Your task to perform on an android device: Open eBay Image 0: 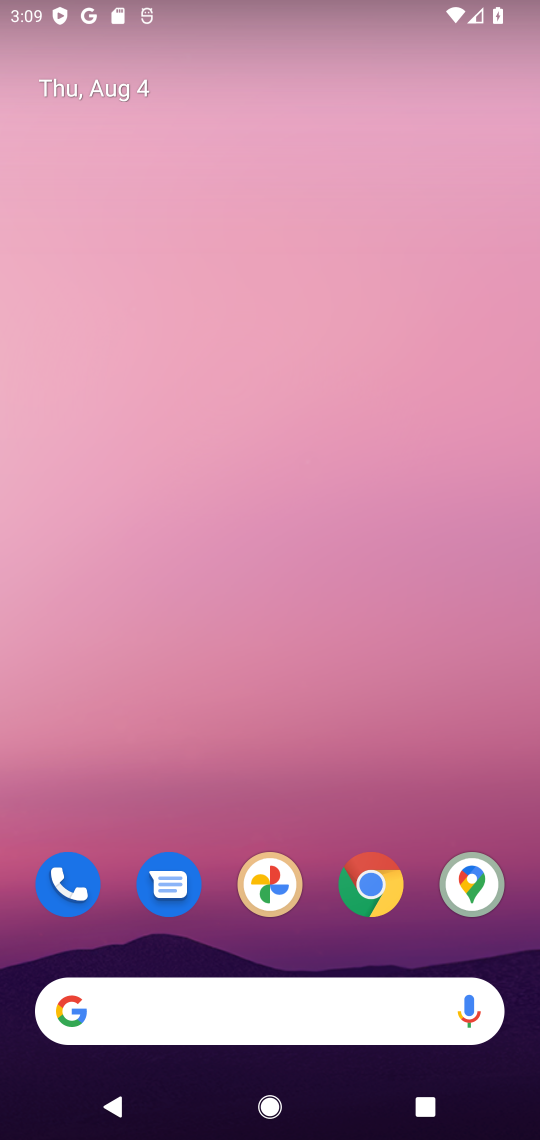
Step 0: drag from (254, 808) to (238, 520)
Your task to perform on an android device: Open eBay Image 1: 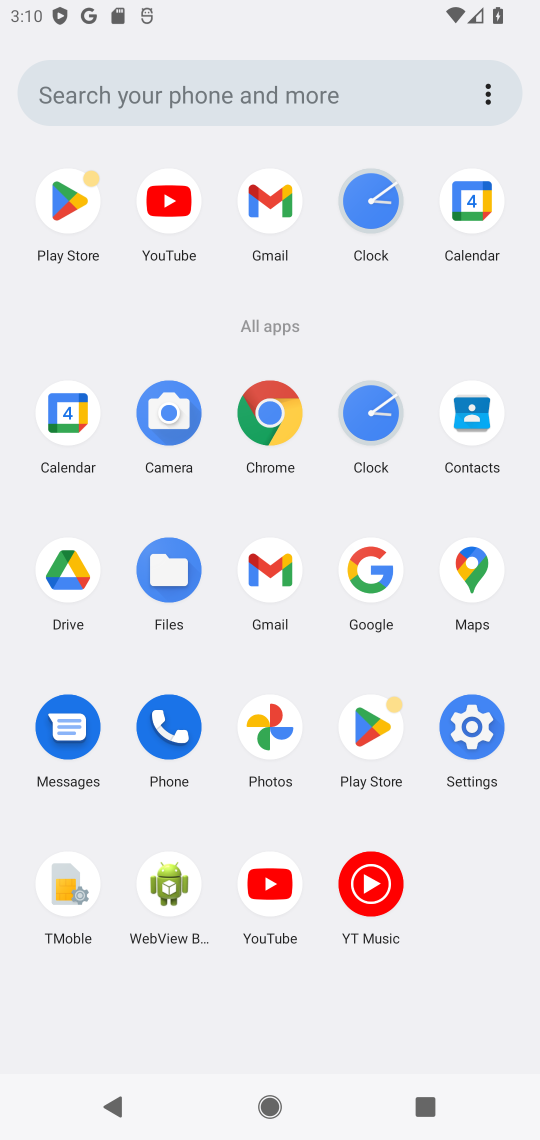
Step 1: click (232, 93)
Your task to perform on an android device: Open eBay Image 2: 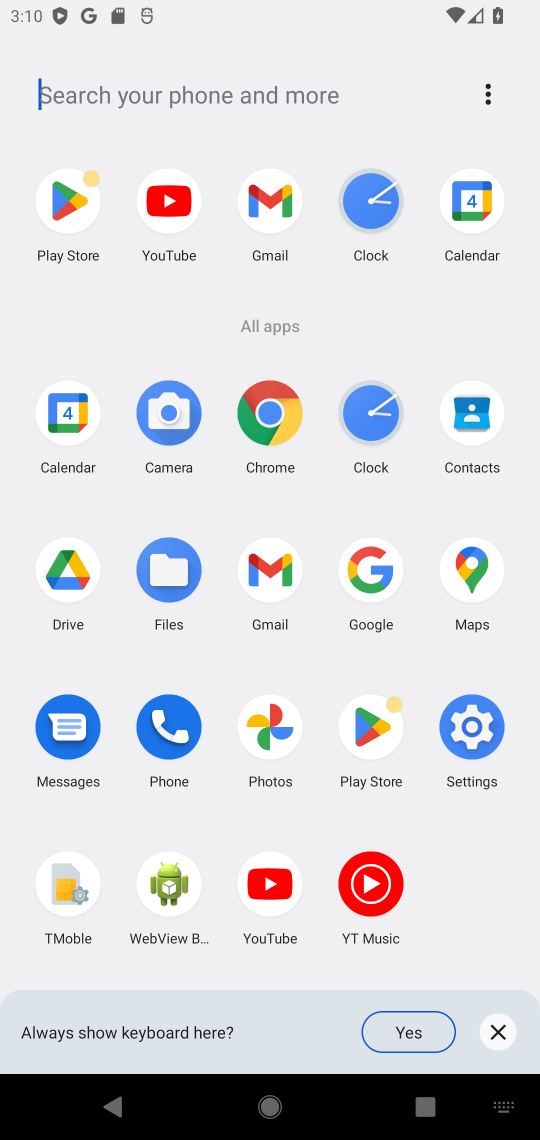
Step 2: type "eBay"
Your task to perform on an android device: Open eBay Image 3: 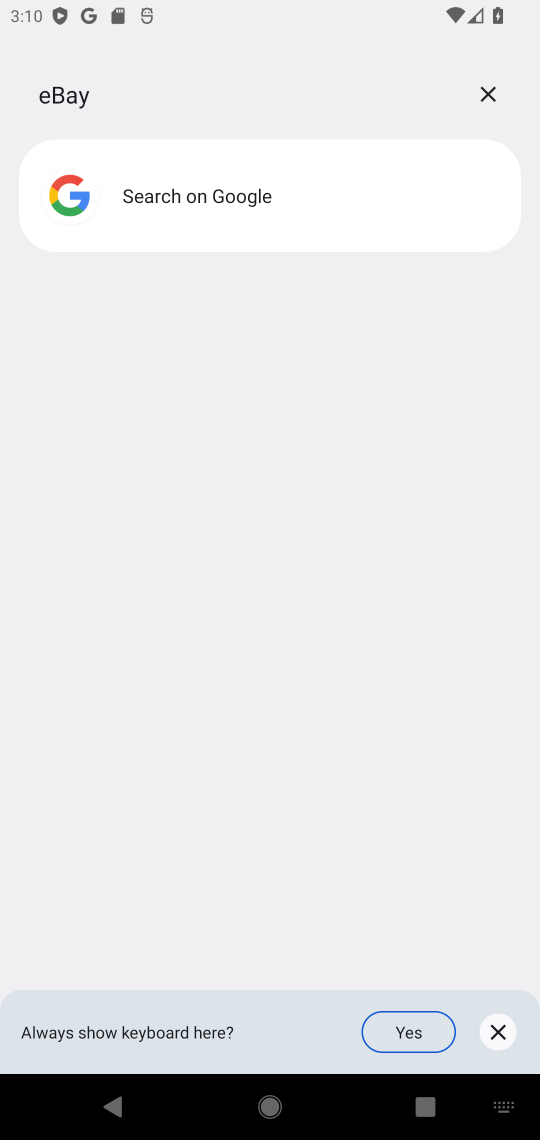
Step 3: click (310, 198)
Your task to perform on an android device: Open eBay Image 4: 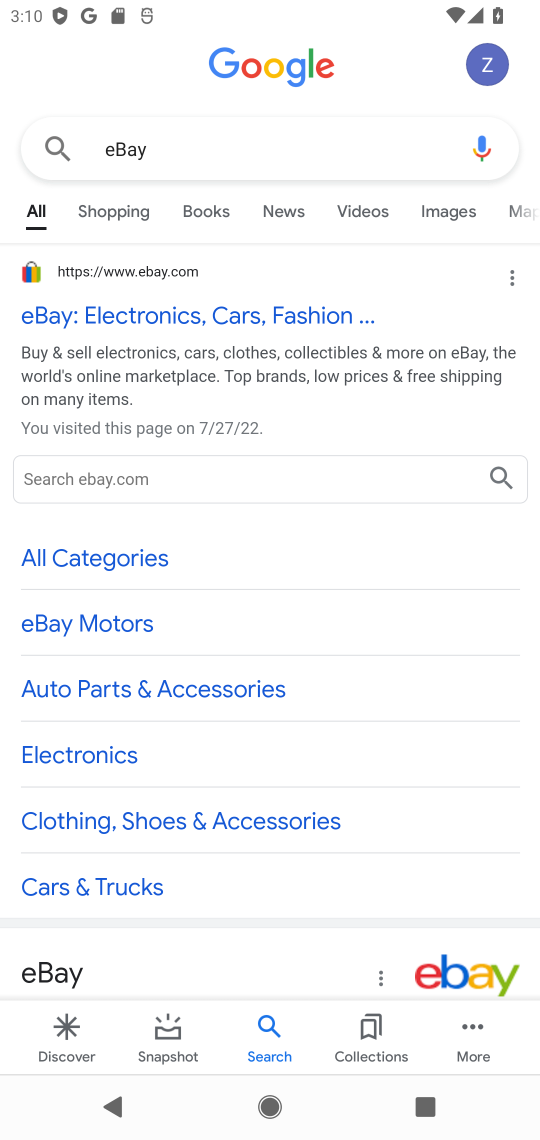
Step 4: click (121, 325)
Your task to perform on an android device: Open eBay Image 5: 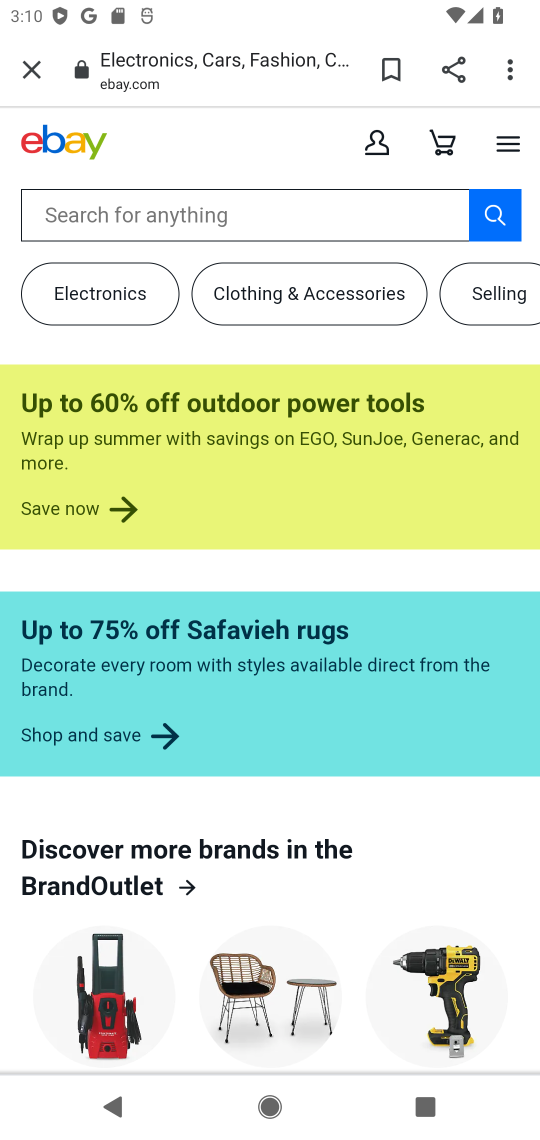
Step 5: drag from (252, 974) to (253, 542)
Your task to perform on an android device: Open eBay Image 6: 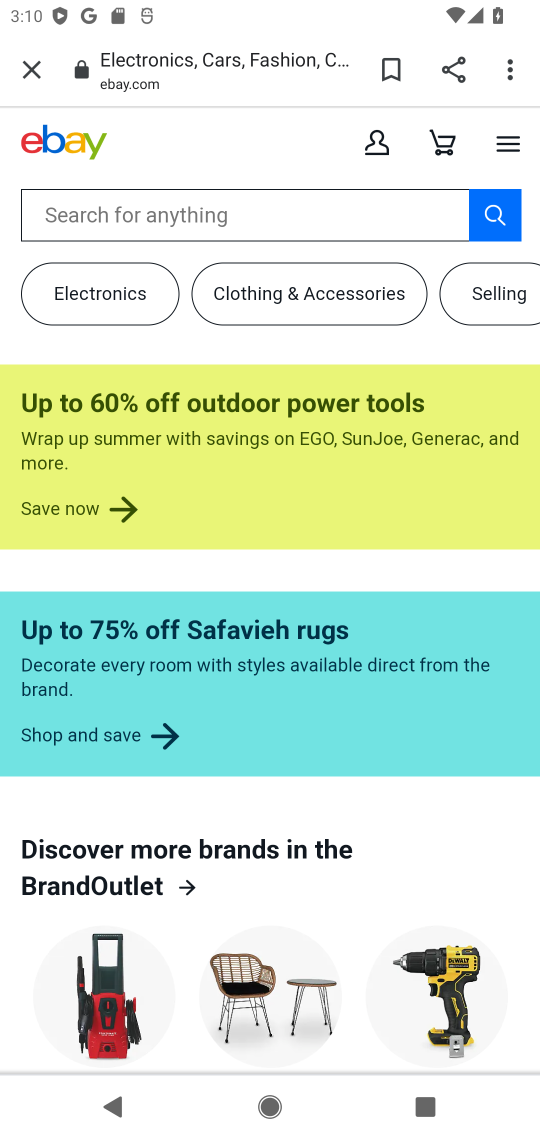
Step 6: click (277, 861)
Your task to perform on an android device: Open eBay Image 7: 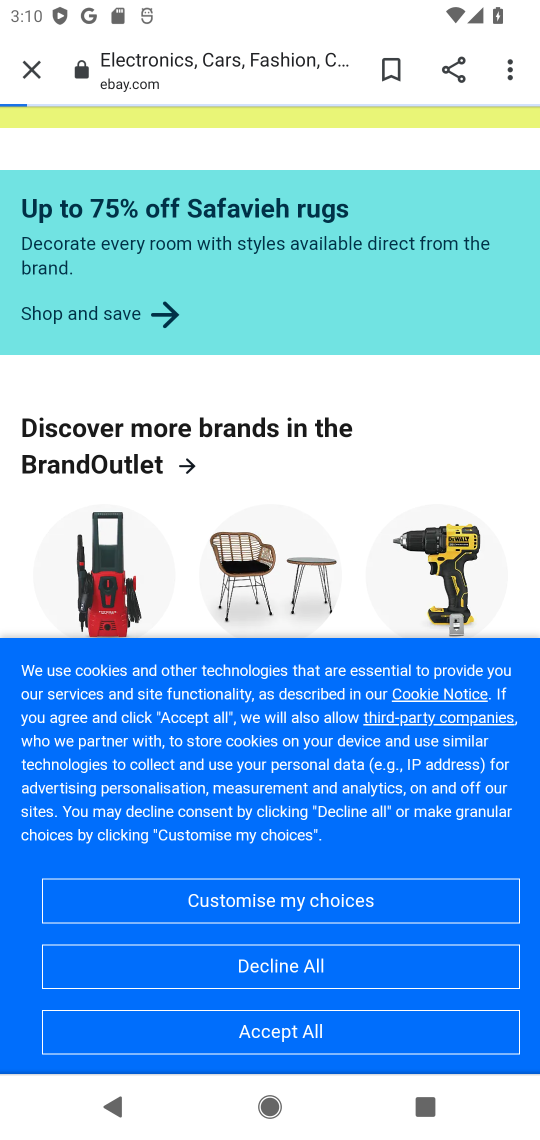
Step 7: task complete